Your task to perform on an android device: Open Chrome and go to settings Image 0: 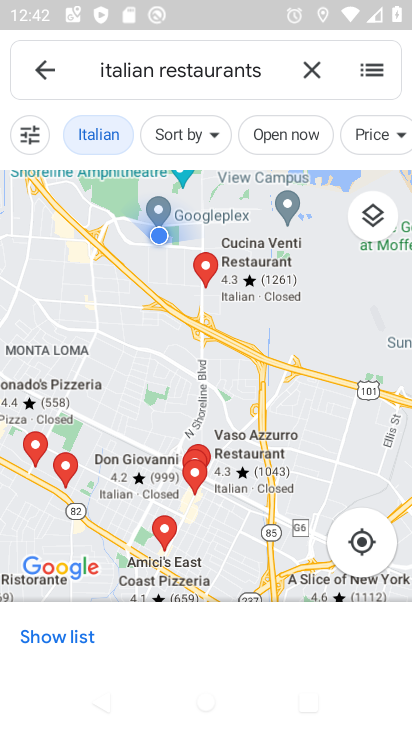
Step 0: task complete